Your task to perform on an android device: turn off improve location accuracy Image 0: 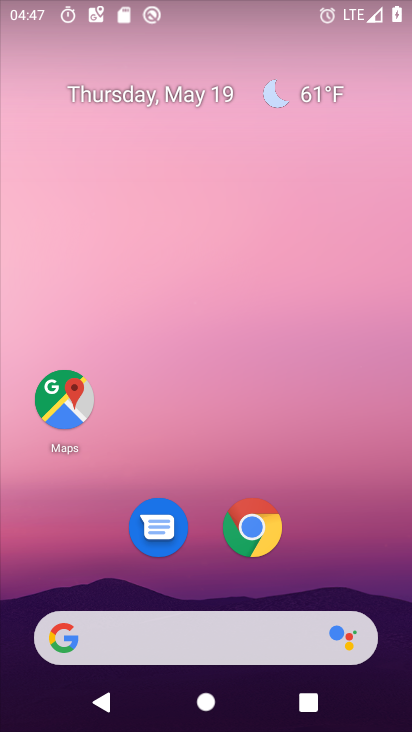
Step 0: drag from (142, 599) to (248, 45)
Your task to perform on an android device: turn off improve location accuracy Image 1: 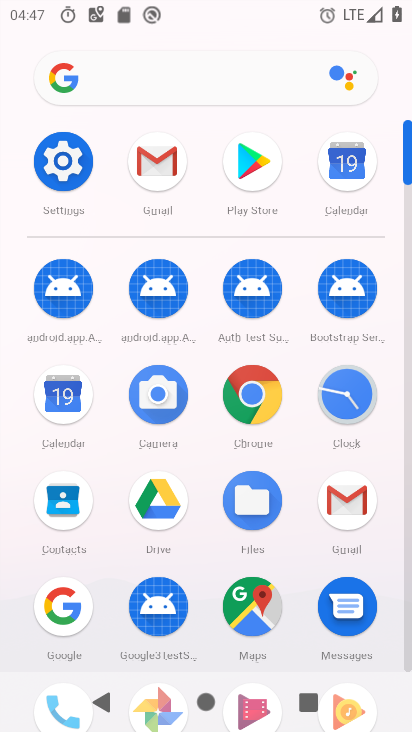
Step 1: click (68, 158)
Your task to perform on an android device: turn off improve location accuracy Image 2: 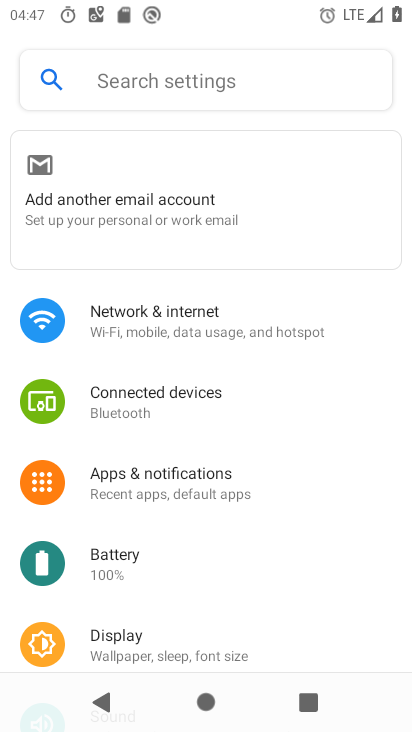
Step 2: drag from (226, 619) to (277, 233)
Your task to perform on an android device: turn off improve location accuracy Image 3: 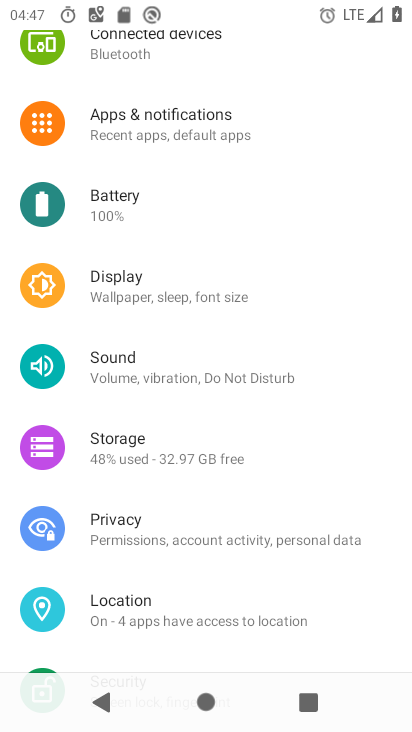
Step 3: click (122, 599)
Your task to perform on an android device: turn off improve location accuracy Image 4: 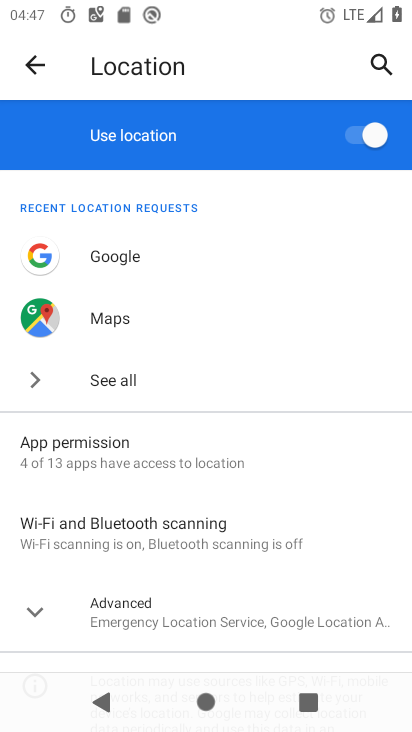
Step 4: click (166, 607)
Your task to perform on an android device: turn off improve location accuracy Image 5: 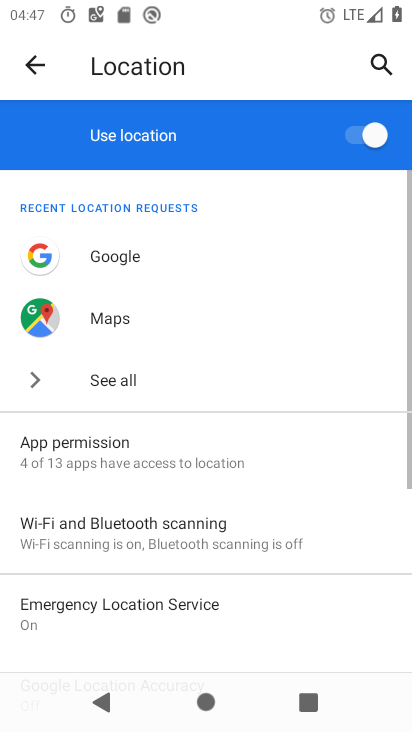
Step 5: drag from (165, 628) to (236, 186)
Your task to perform on an android device: turn off improve location accuracy Image 6: 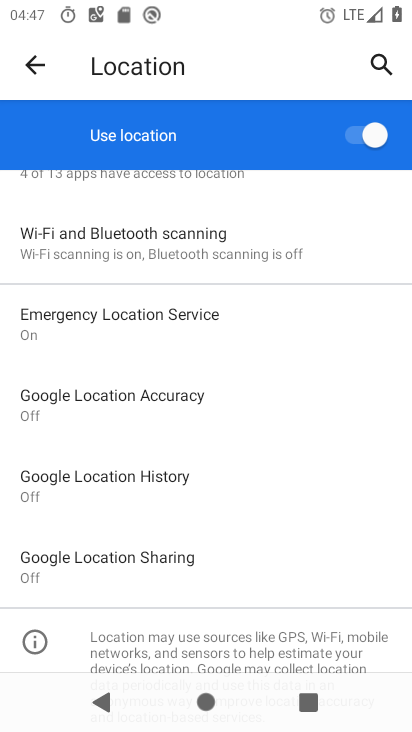
Step 6: click (132, 574)
Your task to perform on an android device: turn off improve location accuracy Image 7: 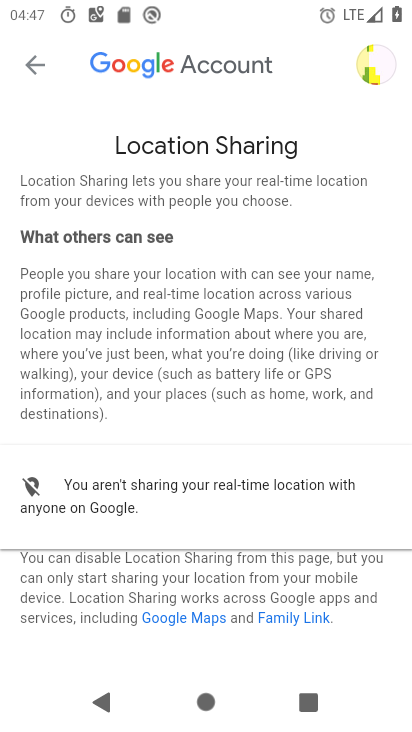
Step 7: click (26, 59)
Your task to perform on an android device: turn off improve location accuracy Image 8: 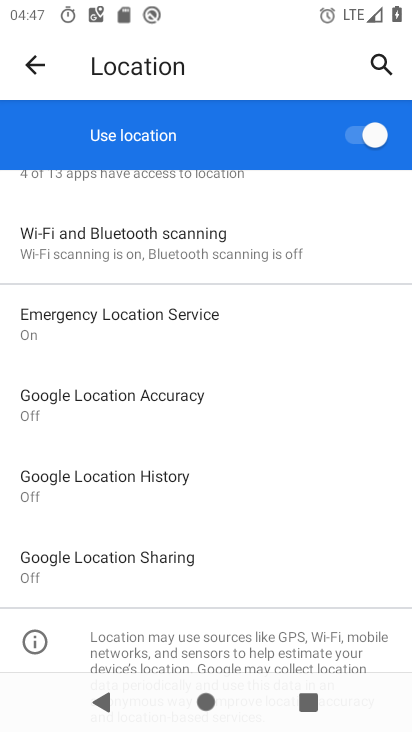
Step 8: click (73, 405)
Your task to perform on an android device: turn off improve location accuracy Image 9: 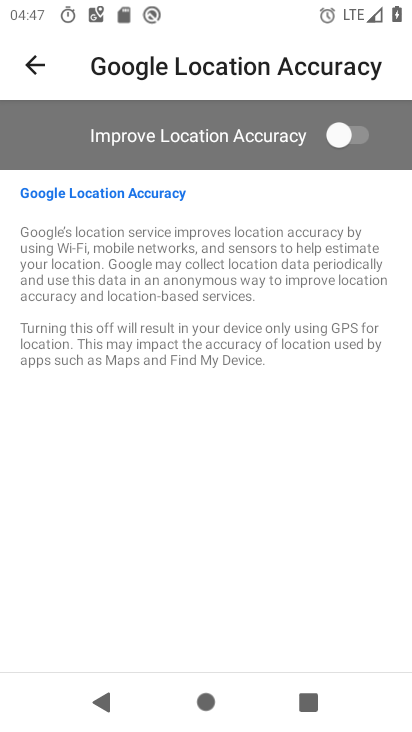
Step 9: task complete